Your task to perform on an android device: When is my next meeting? Image 0: 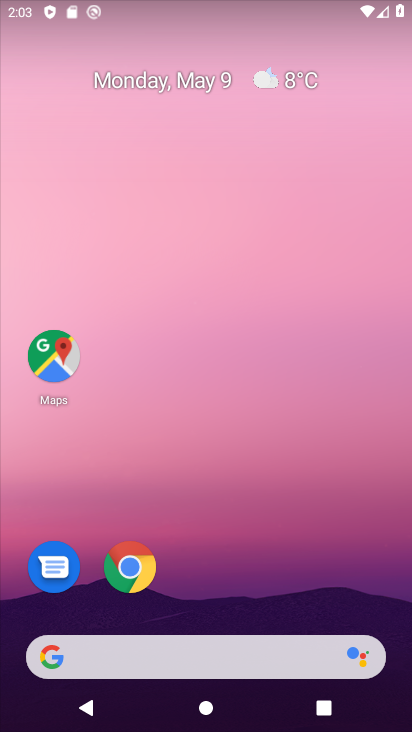
Step 0: drag from (312, 596) to (314, 184)
Your task to perform on an android device: When is my next meeting? Image 1: 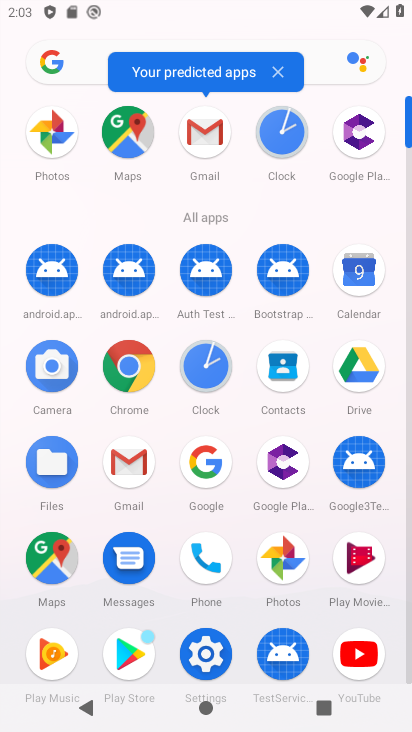
Step 1: drag from (226, 563) to (256, 272)
Your task to perform on an android device: When is my next meeting? Image 2: 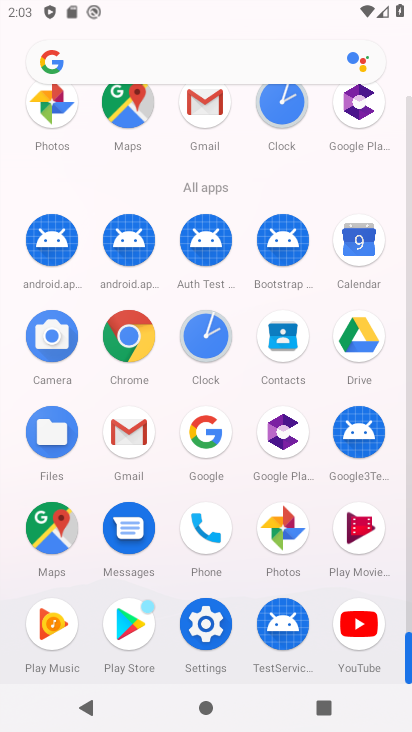
Step 2: drag from (322, 275) to (280, 687)
Your task to perform on an android device: When is my next meeting? Image 3: 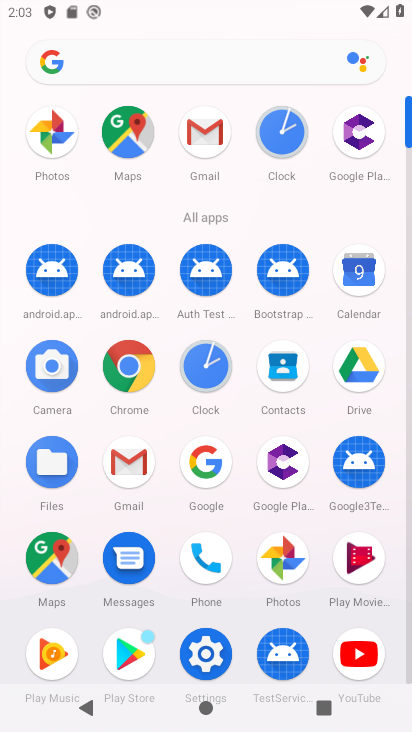
Step 3: drag from (296, 213) to (266, 668)
Your task to perform on an android device: When is my next meeting? Image 4: 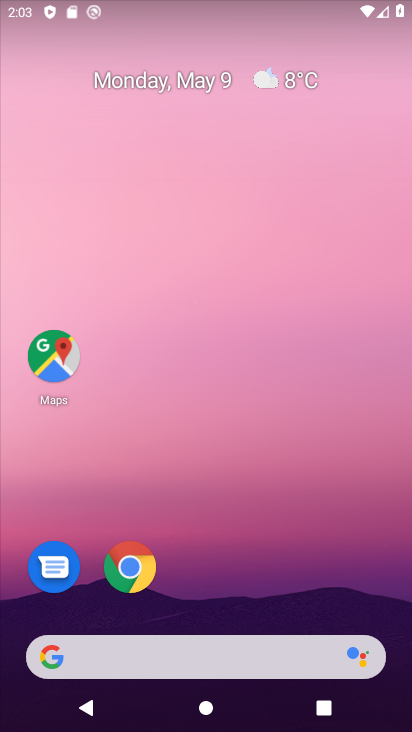
Step 4: drag from (216, 598) to (259, 235)
Your task to perform on an android device: When is my next meeting? Image 5: 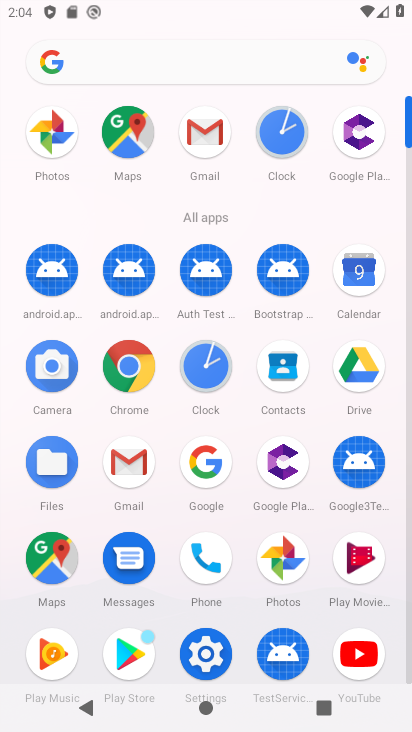
Step 5: click (352, 259)
Your task to perform on an android device: When is my next meeting? Image 6: 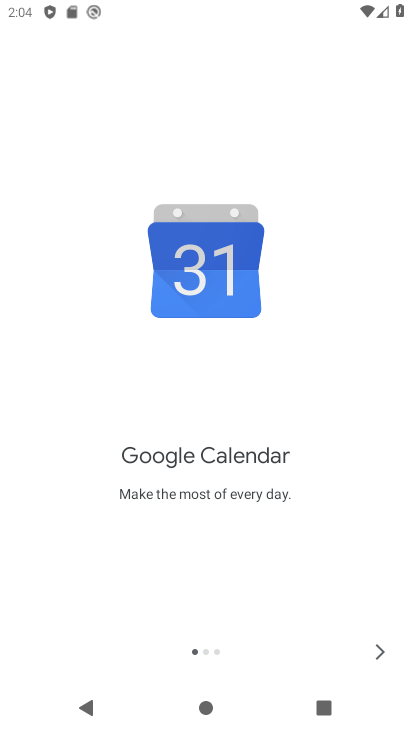
Step 6: click (371, 650)
Your task to perform on an android device: When is my next meeting? Image 7: 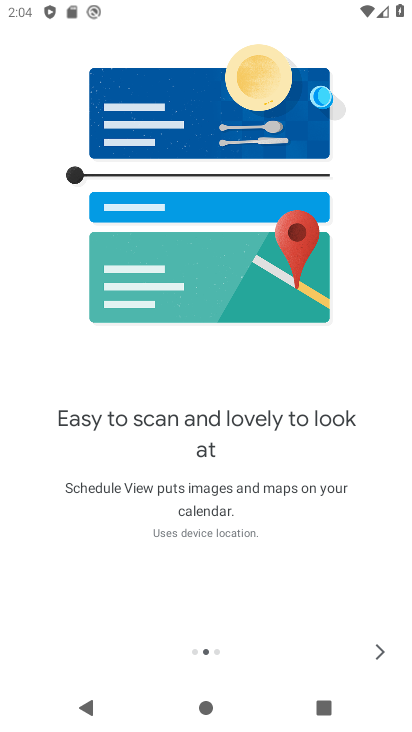
Step 7: click (371, 650)
Your task to perform on an android device: When is my next meeting? Image 8: 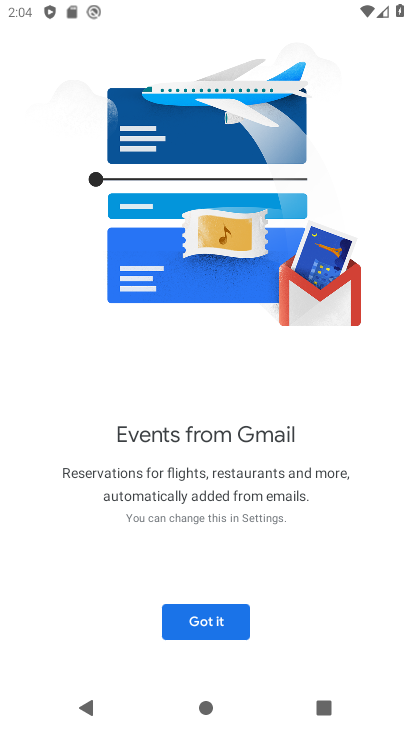
Step 8: click (371, 650)
Your task to perform on an android device: When is my next meeting? Image 9: 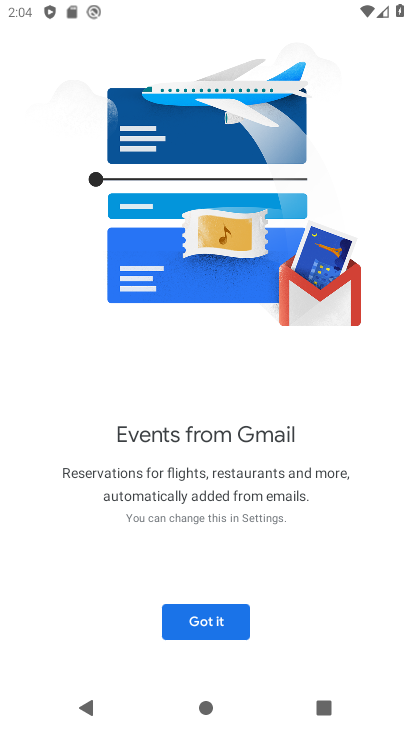
Step 9: click (204, 613)
Your task to perform on an android device: When is my next meeting? Image 10: 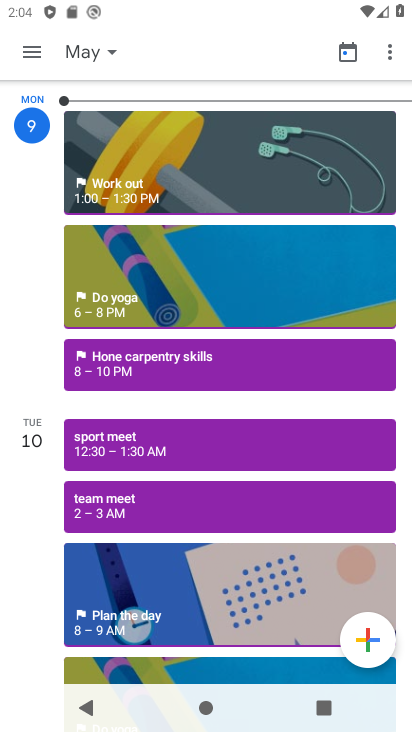
Step 10: click (27, 38)
Your task to perform on an android device: When is my next meeting? Image 11: 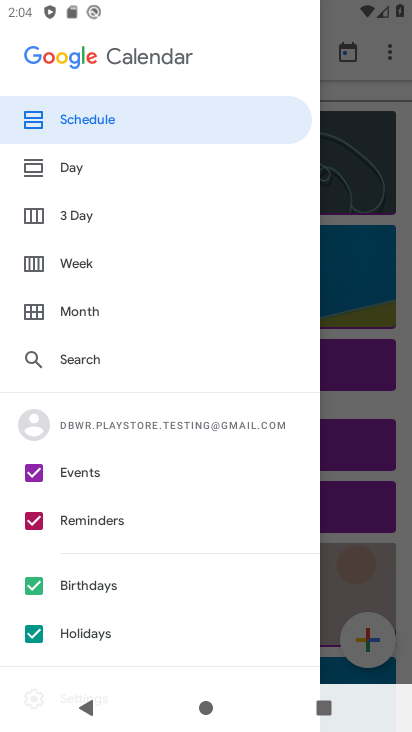
Step 11: click (99, 303)
Your task to perform on an android device: When is my next meeting? Image 12: 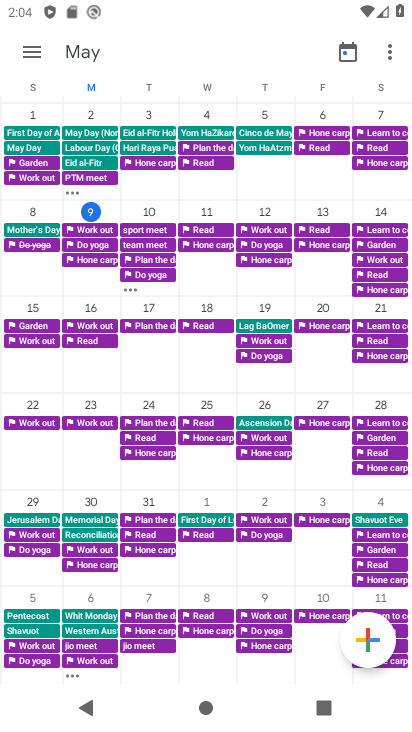
Step 12: click (142, 215)
Your task to perform on an android device: When is my next meeting? Image 13: 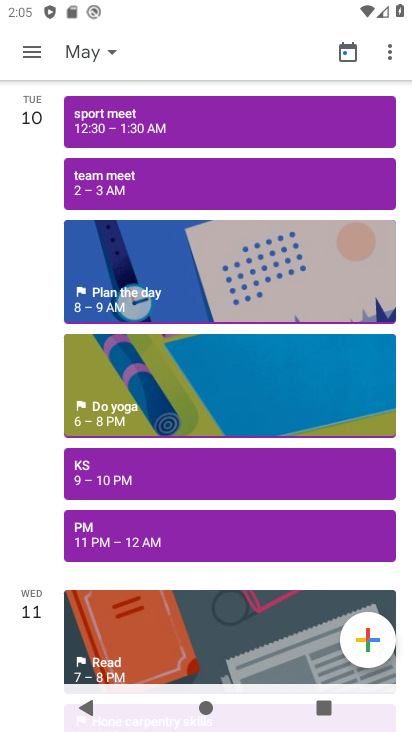
Step 13: task complete